Your task to perform on an android device: What's the weather going to be this weekend? Image 0: 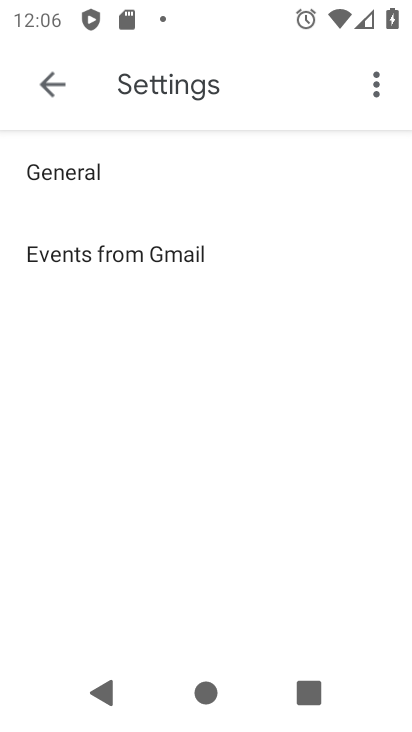
Step 0: press home button
Your task to perform on an android device: What's the weather going to be this weekend? Image 1: 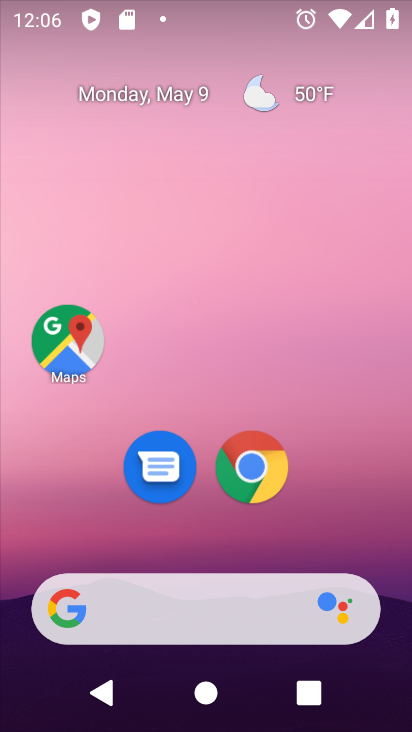
Step 1: drag from (204, 546) to (240, 74)
Your task to perform on an android device: What's the weather going to be this weekend? Image 2: 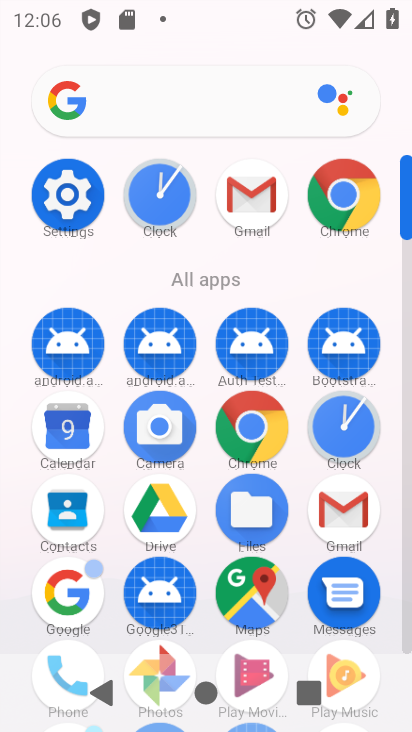
Step 2: press back button
Your task to perform on an android device: What's the weather going to be this weekend? Image 3: 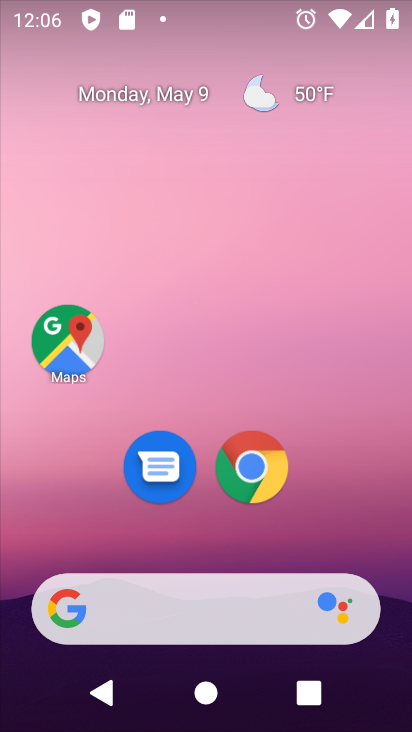
Step 3: click (301, 88)
Your task to perform on an android device: What's the weather going to be this weekend? Image 4: 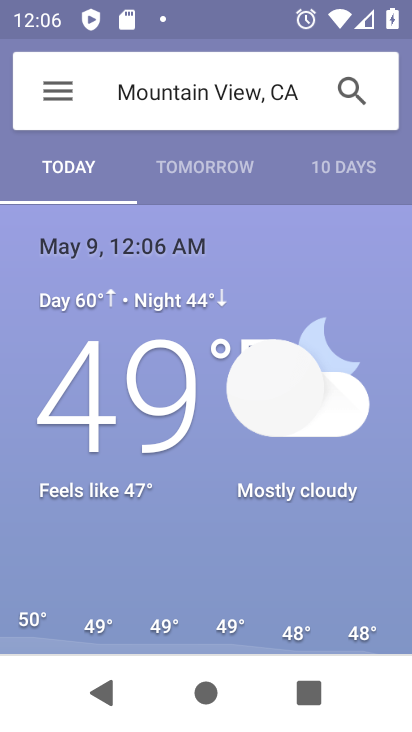
Step 4: click (329, 183)
Your task to perform on an android device: What's the weather going to be this weekend? Image 5: 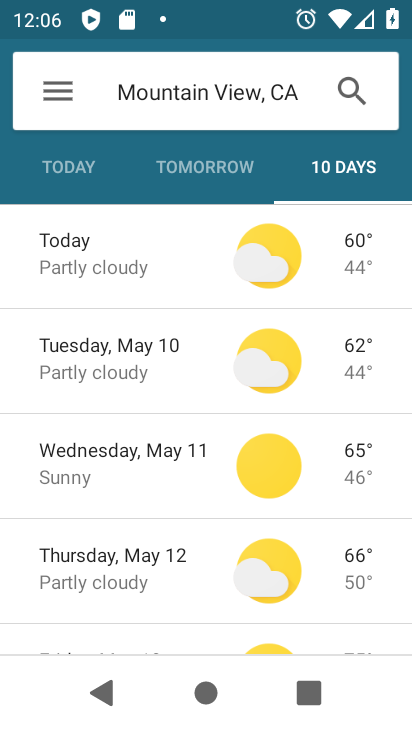
Step 5: task complete